Your task to perform on an android device: Open Yahoo.com Image 0: 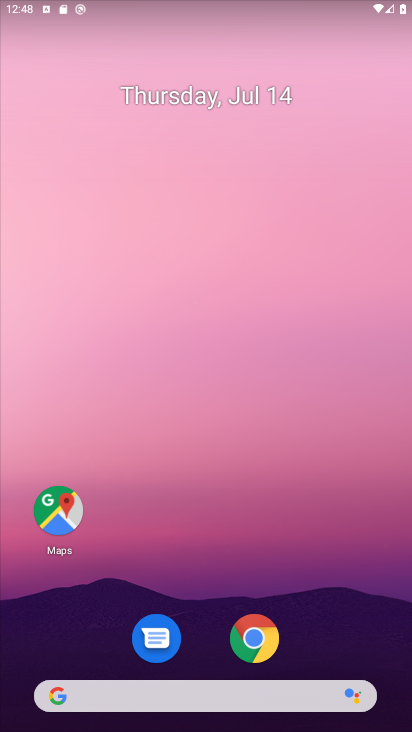
Step 0: click (243, 634)
Your task to perform on an android device: Open Yahoo.com Image 1: 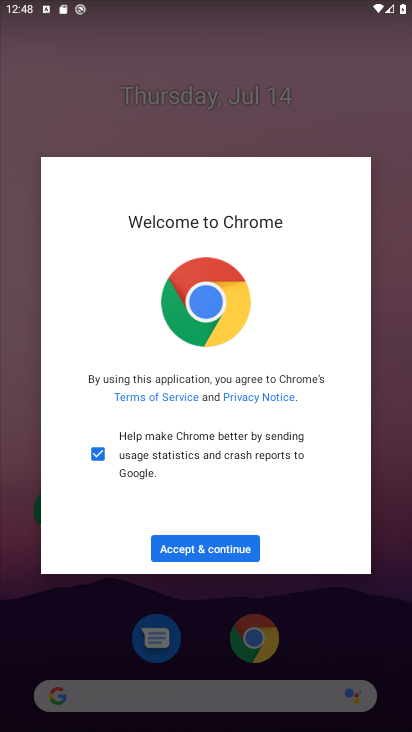
Step 1: click (218, 550)
Your task to perform on an android device: Open Yahoo.com Image 2: 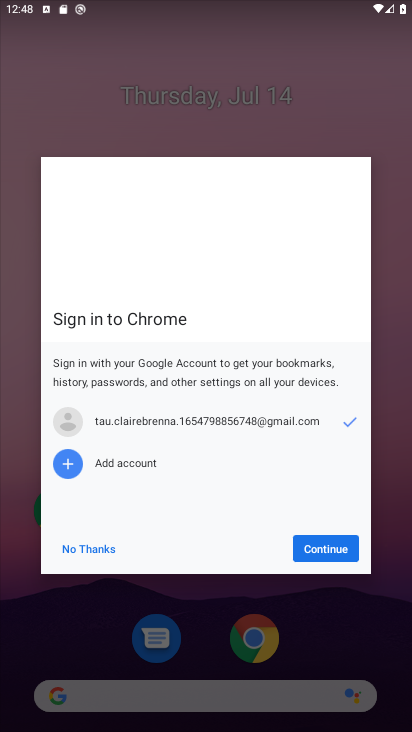
Step 2: click (311, 539)
Your task to perform on an android device: Open Yahoo.com Image 3: 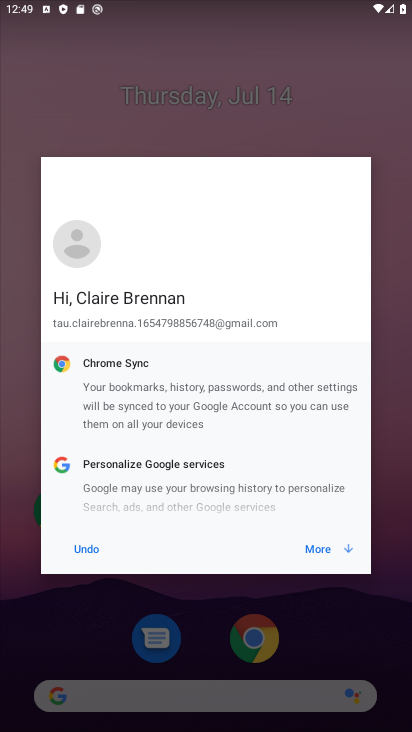
Step 3: click (339, 551)
Your task to perform on an android device: Open Yahoo.com Image 4: 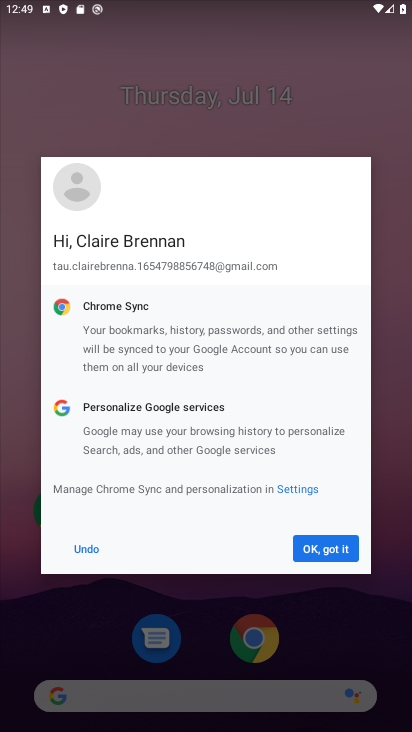
Step 4: click (323, 547)
Your task to perform on an android device: Open Yahoo.com Image 5: 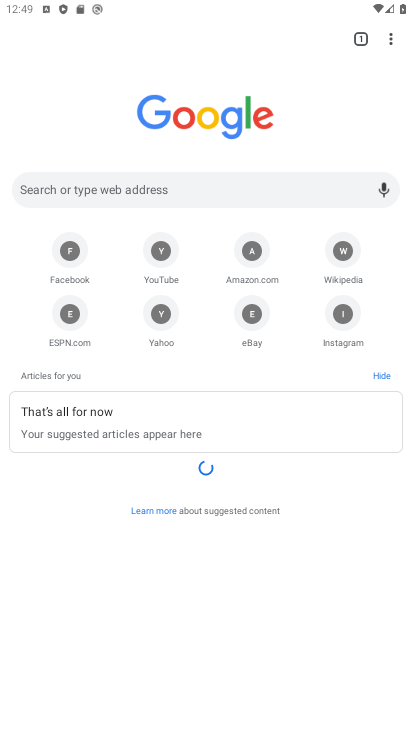
Step 5: click (158, 330)
Your task to perform on an android device: Open Yahoo.com Image 6: 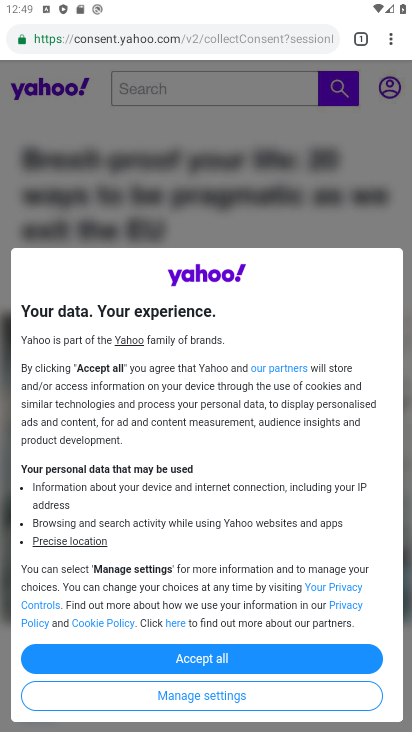
Step 6: task complete